Your task to perform on an android device: turn pop-ups on in chrome Image 0: 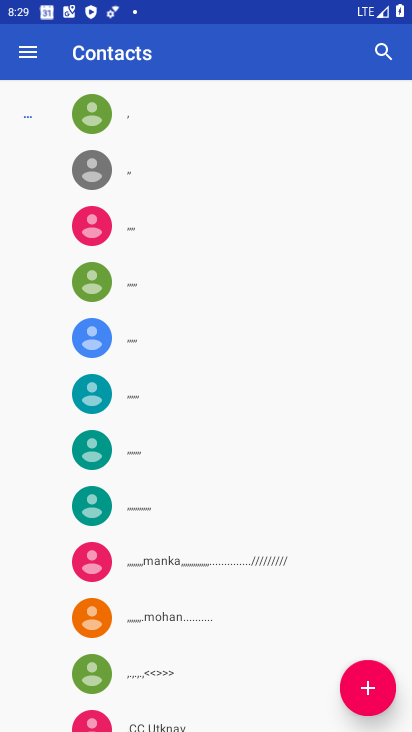
Step 0: press home button
Your task to perform on an android device: turn pop-ups on in chrome Image 1: 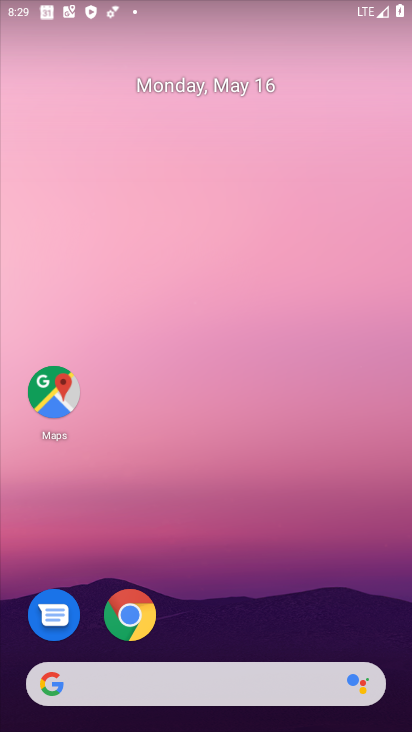
Step 1: drag from (237, 573) to (263, 199)
Your task to perform on an android device: turn pop-ups on in chrome Image 2: 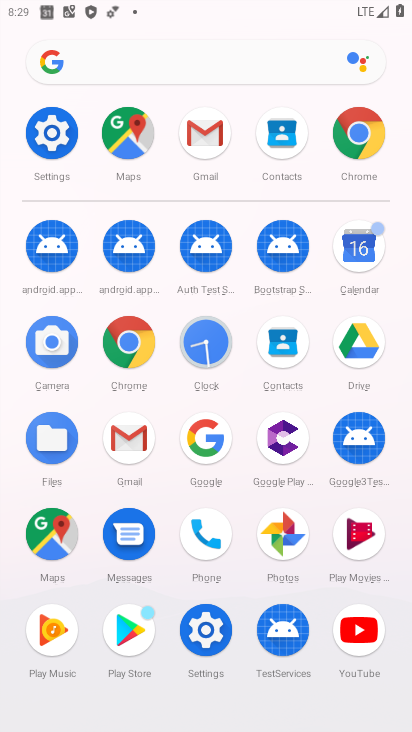
Step 2: click (368, 165)
Your task to perform on an android device: turn pop-ups on in chrome Image 3: 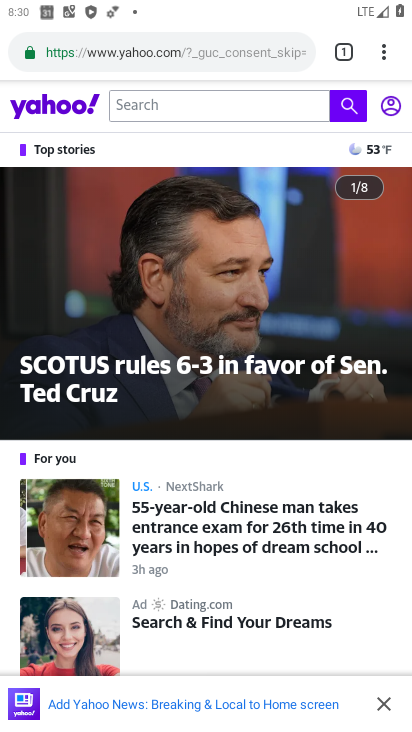
Step 3: click (389, 61)
Your task to perform on an android device: turn pop-ups on in chrome Image 4: 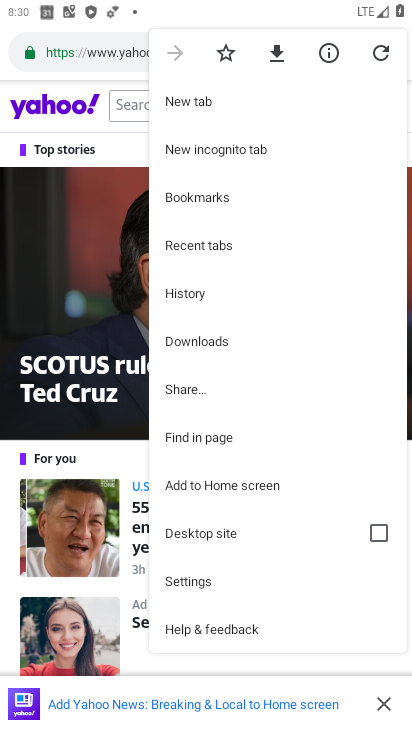
Step 4: click (204, 583)
Your task to perform on an android device: turn pop-ups on in chrome Image 5: 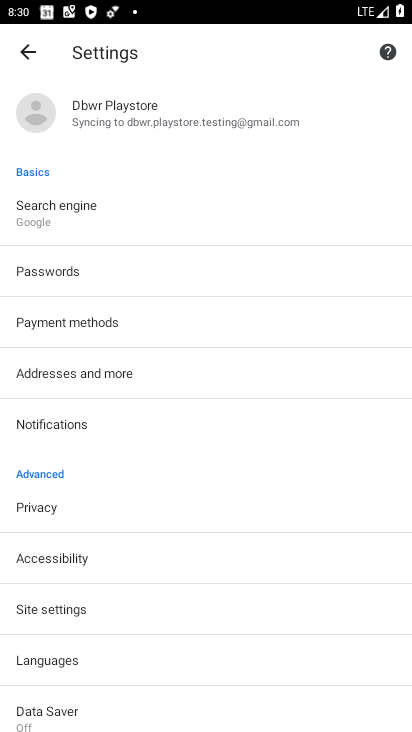
Step 5: drag from (187, 622) to (191, 408)
Your task to perform on an android device: turn pop-ups on in chrome Image 6: 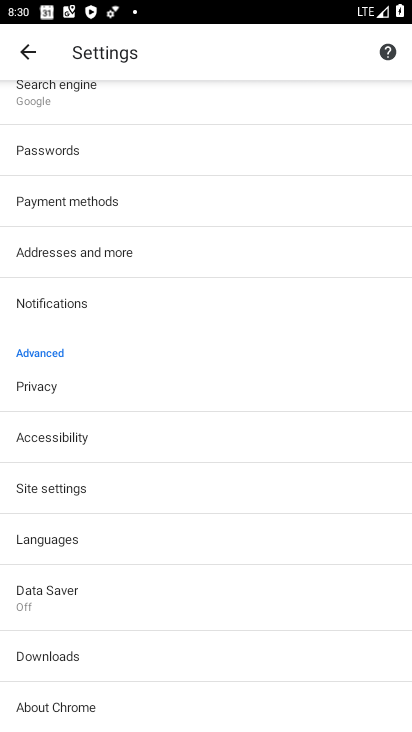
Step 6: click (67, 489)
Your task to perform on an android device: turn pop-ups on in chrome Image 7: 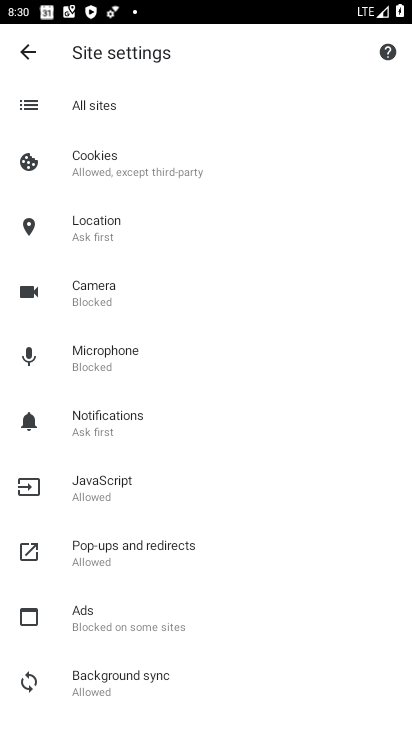
Step 7: click (119, 569)
Your task to perform on an android device: turn pop-ups on in chrome Image 8: 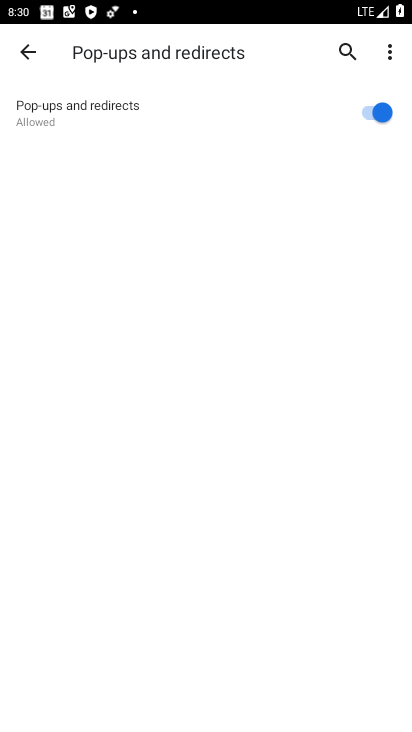
Step 8: task complete